Your task to perform on an android device: Go to sound settings Image 0: 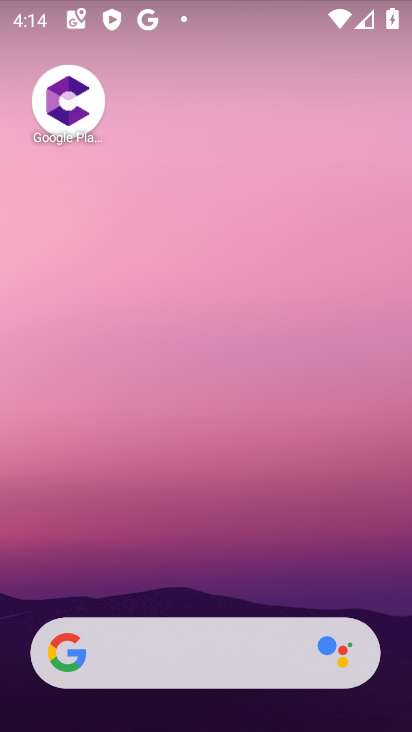
Step 0: drag from (188, 615) to (203, 220)
Your task to perform on an android device: Go to sound settings Image 1: 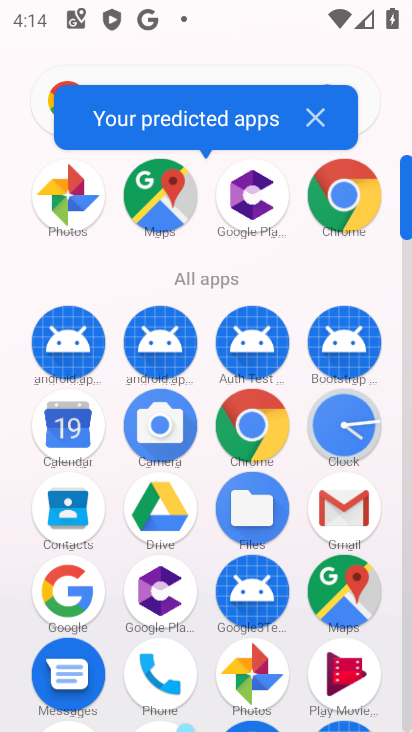
Step 1: drag from (196, 594) to (203, 162)
Your task to perform on an android device: Go to sound settings Image 2: 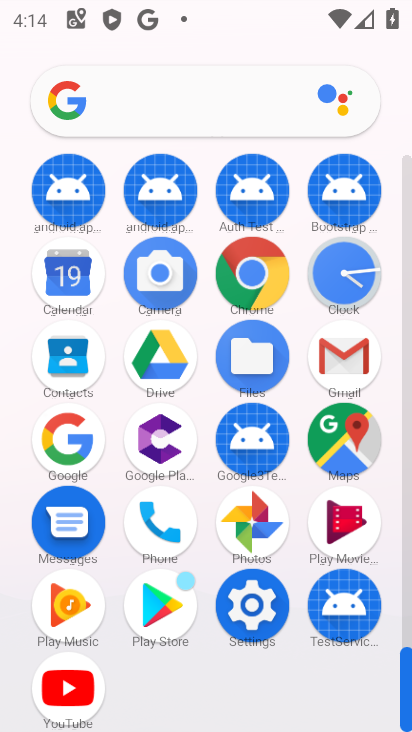
Step 2: click (249, 615)
Your task to perform on an android device: Go to sound settings Image 3: 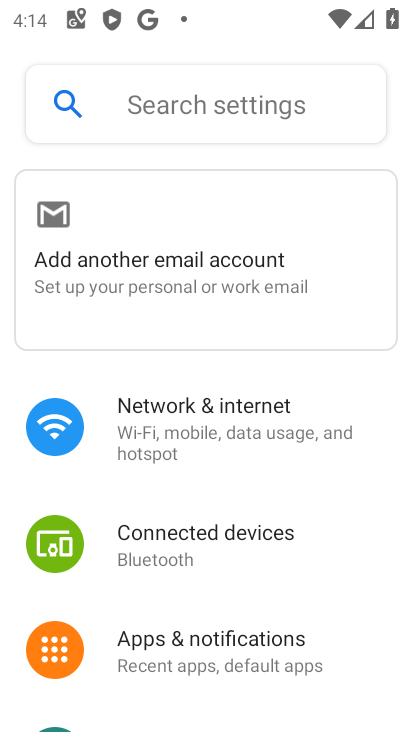
Step 3: drag from (174, 659) to (174, 248)
Your task to perform on an android device: Go to sound settings Image 4: 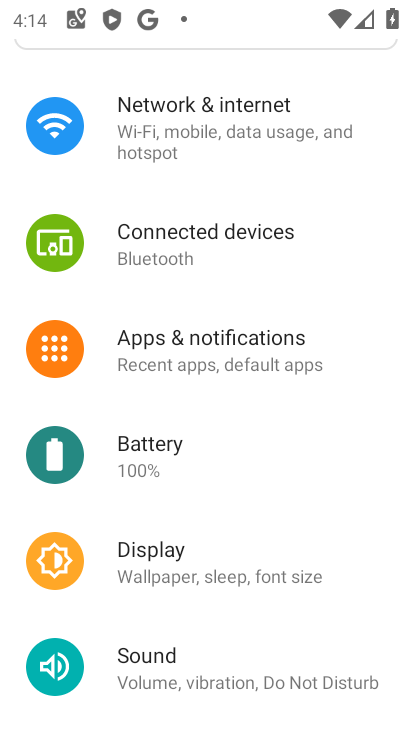
Step 4: click (161, 675)
Your task to perform on an android device: Go to sound settings Image 5: 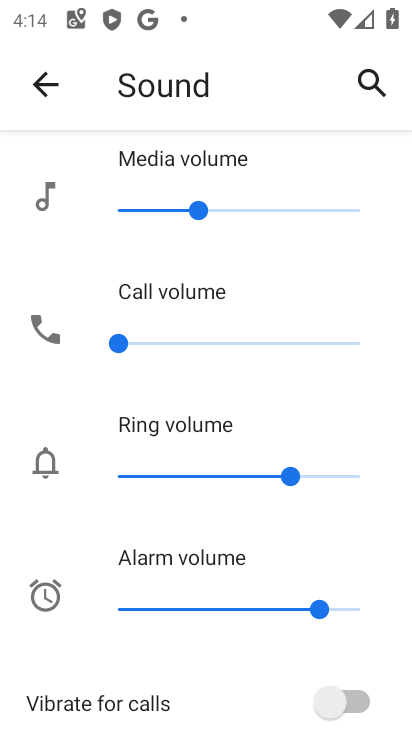
Step 5: task complete